Your task to perform on an android device: Play the last video I watched on Youtube Image 0: 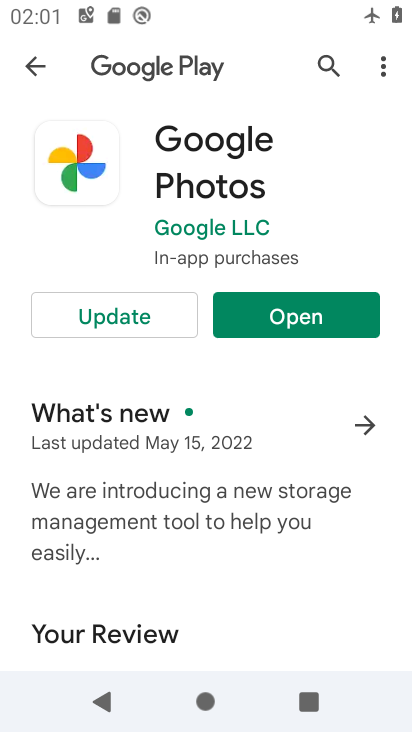
Step 0: press home button
Your task to perform on an android device: Play the last video I watched on Youtube Image 1: 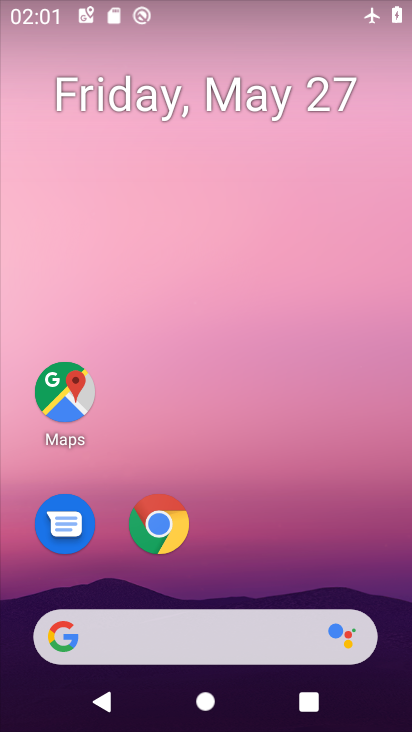
Step 1: drag from (254, 571) to (226, 11)
Your task to perform on an android device: Play the last video I watched on Youtube Image 2: 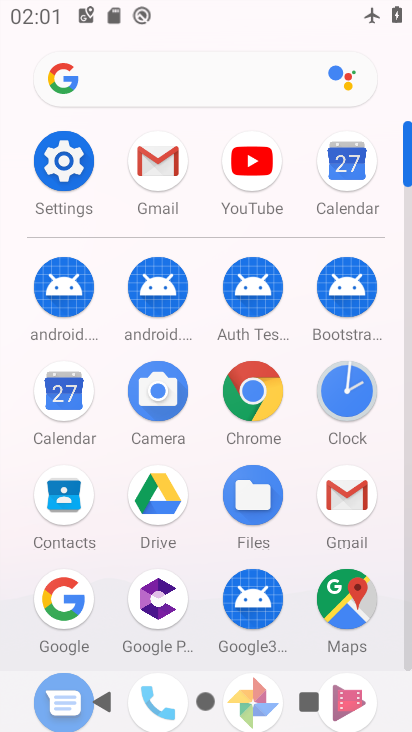
Step 2: click (245, 167)
Your task to perform on an android device: Play the last video I watched on Youtube Image 3: 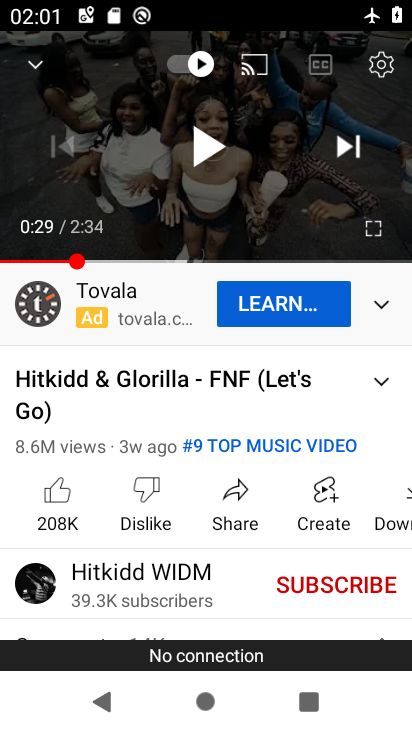
Step 3: click (205, 152)
Your task to perform on an android device: Play the last video I watched on Youtube Image 4: 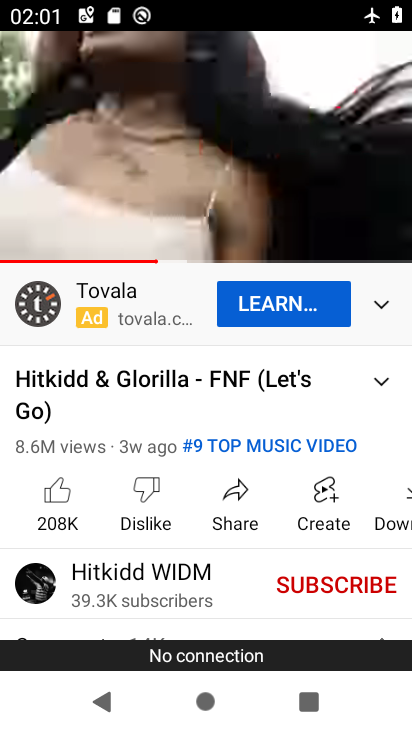
Step 4: task complete